Your task to perform on an android device: add a label to a message in the gmail app Image 0: 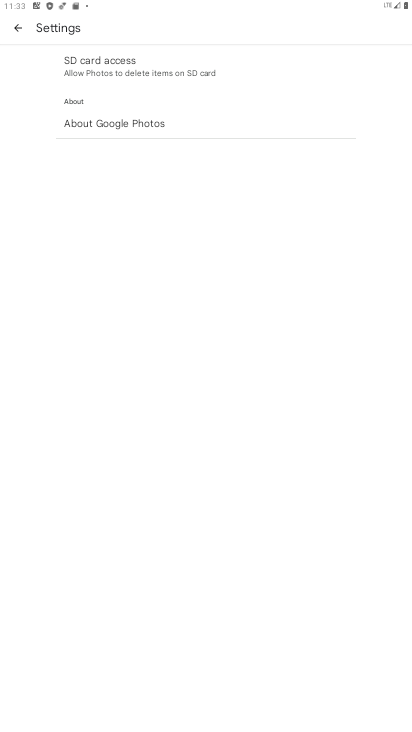
Step 0: press home button
Your task to perform on an android device: add a label to a message in the gmail app Image 1: 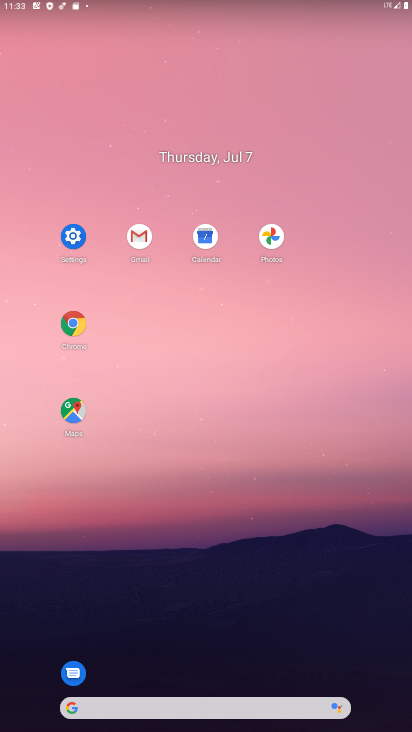
Step 1: click (138, 228)
Your task to perform on an android device: add a label to a message in the gmail app Image 2: 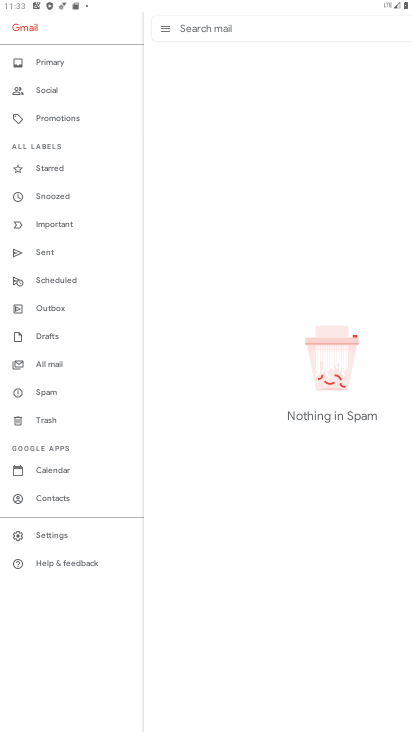
Step 2: click (81, 361)
Your task to perform on an android device: add a label to a message in the gmail app Image 3: 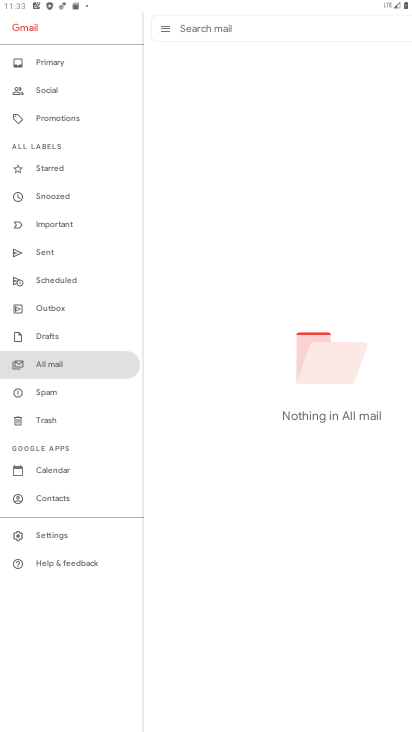
Step 3: task complete